Your task to perform on an android device: find photos in the google photos app Image 0: 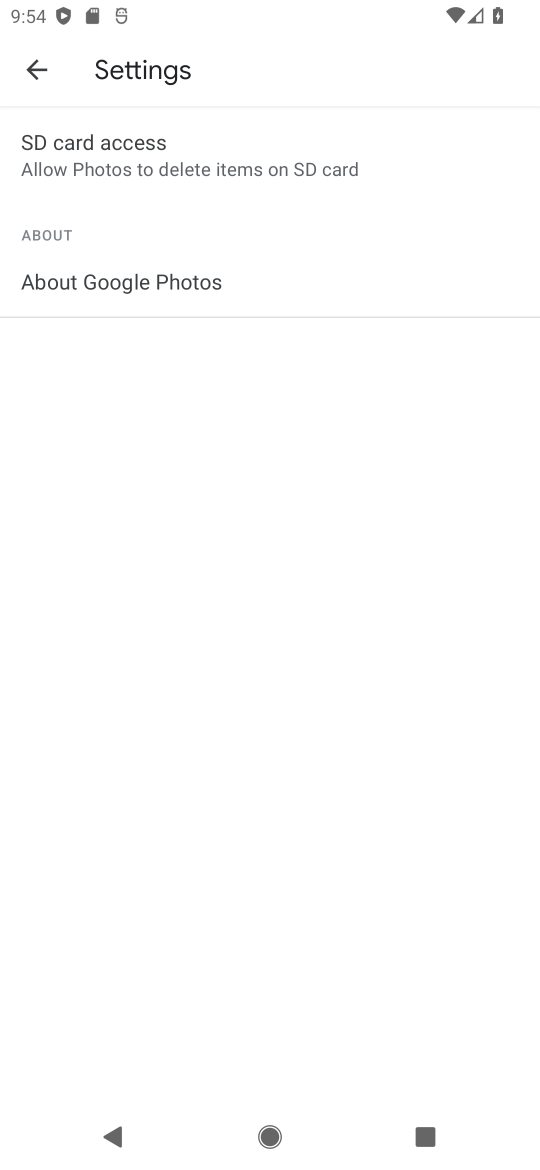
Step 0: task complete